Your task to perform on an android device: When is my next appointment? Image 0: 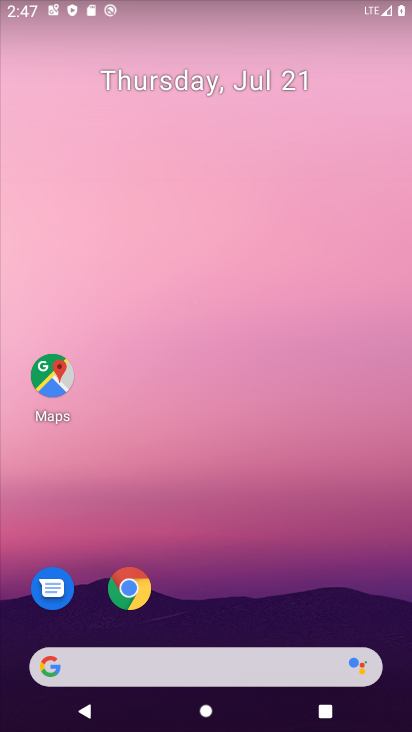
Step 0: drag from (221, 597) to (309, 103)
Your task to perform on an android device: When is my next appointment? Image 1: 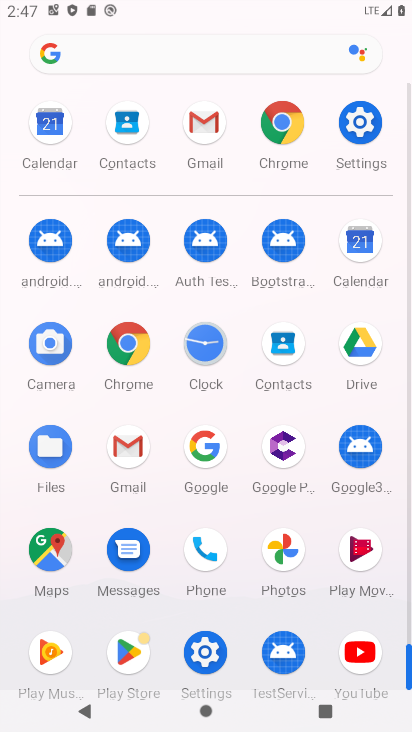
Step 1: drag from (226, 640) to (255, 285)
Your task to perform on an android device: When is my next appointment? Image 2: 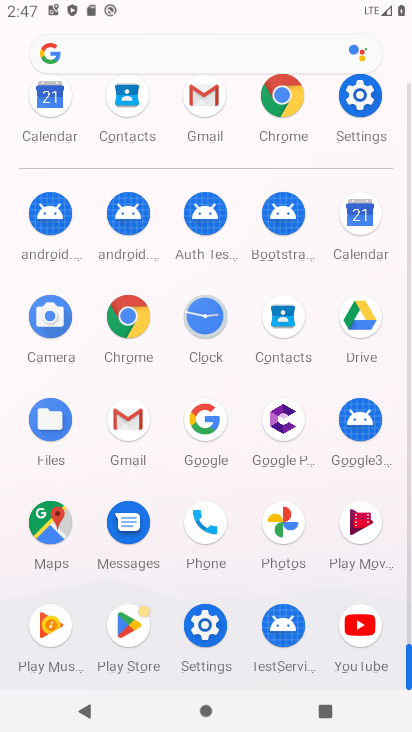
Step 2: drag from (254, 633) to (289, 500)
Your task to perform on an android device: When is my next appointment? Image 3: 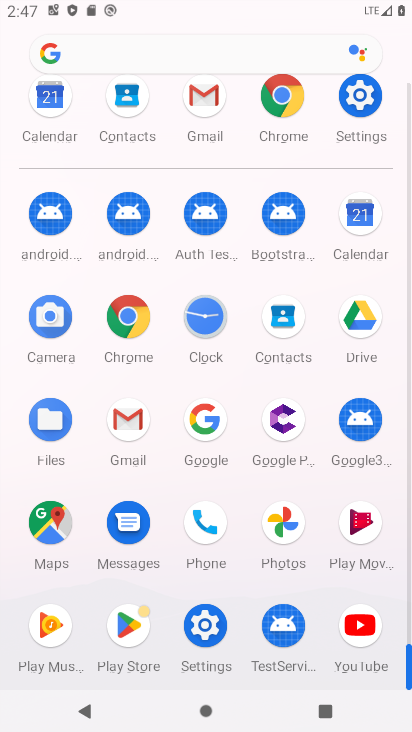
Step 3: click (363, 204)
Your task to perform on an android device: When is my next appointment? Image 4: 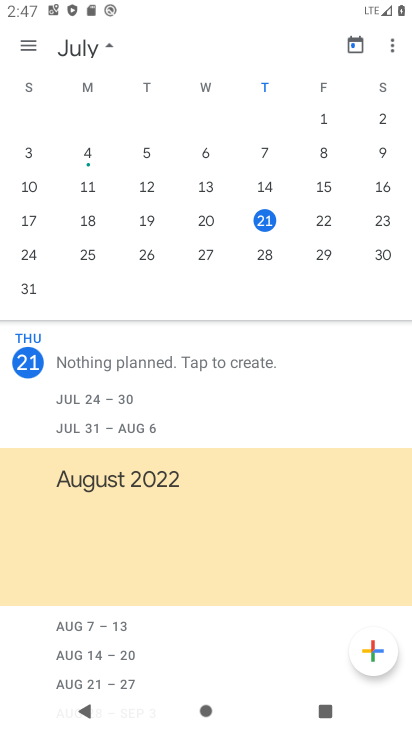
Step 4: drag from (362, 216) to (0, 234)
Your task to perform on an android device: When is my next appointment? Image 5: 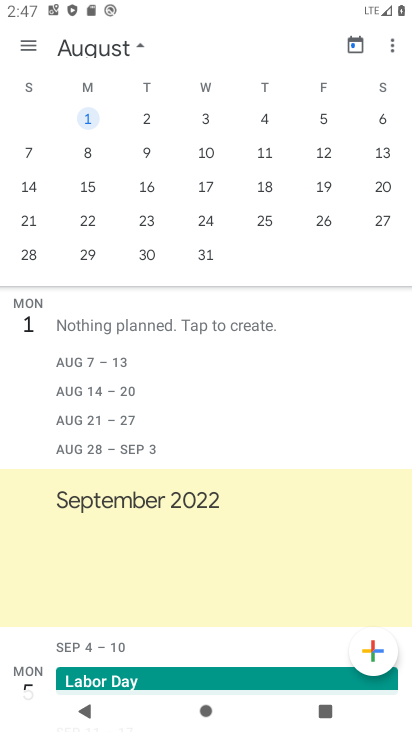
Step 5: click (339, 50)
Your task to perform on an android device: When is my next appointment? Image 6: 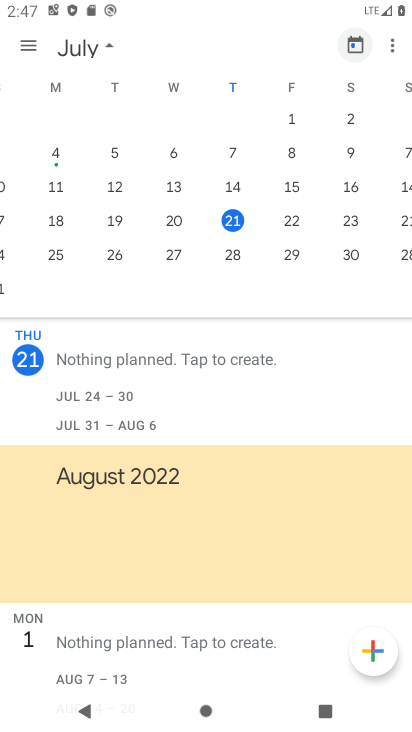
Step 6: click (346, 50)
Your task to perform on an android device: When is my next appointment? Image 7: 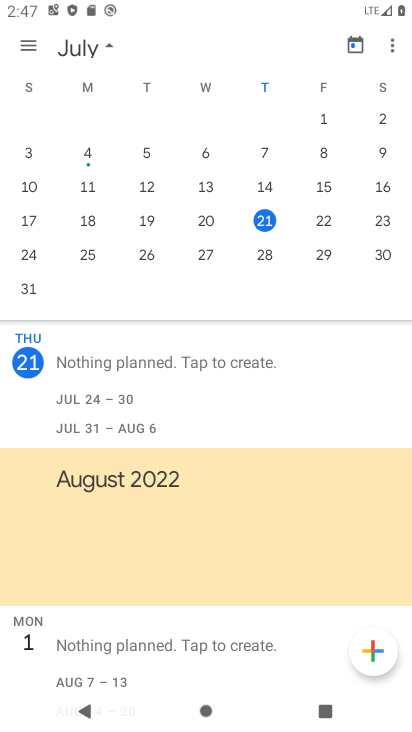
Step 7: task complete